Your task to perform on an android device: change timer sound Image 0: 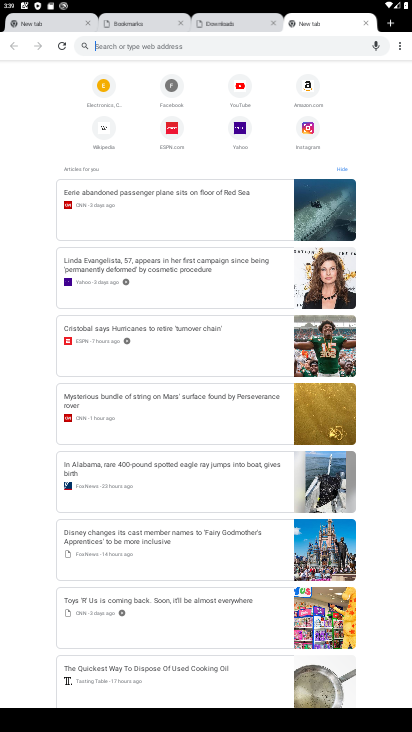
Step 0: press home button
Your task to perform on an android device: change timer sound Image 1: 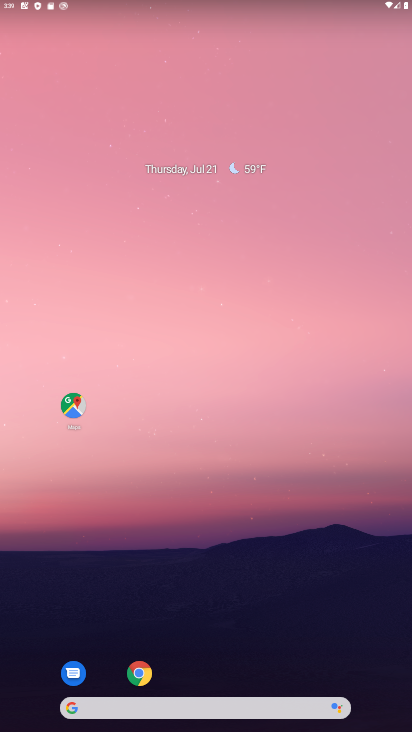
Step 1: drag from (351, 665) to (315, 178)
Your task to perform on an android device: change timer sound Image 2: 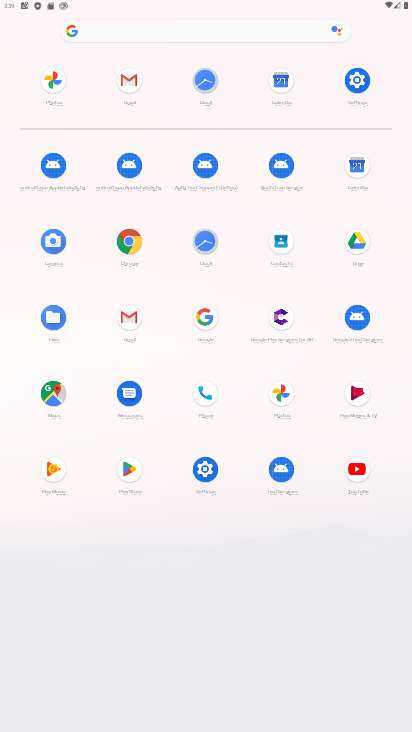
Step 2: click (204, 242)
Your task to perform on an android device: change timer sound Image 3: 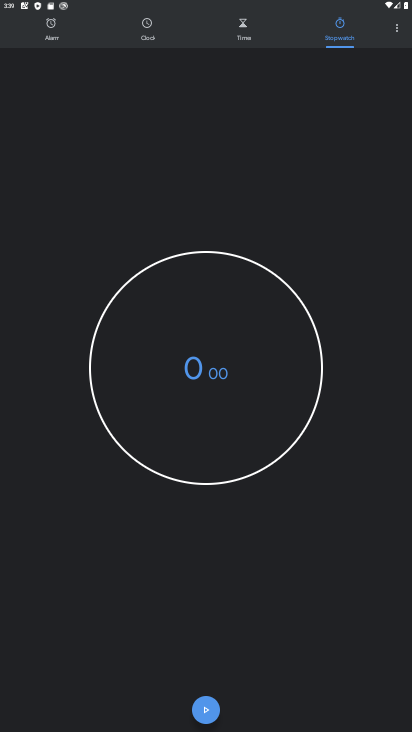
Step 3: click (397, 34)
Your task to perform on an android device: change timer sound Image 4: 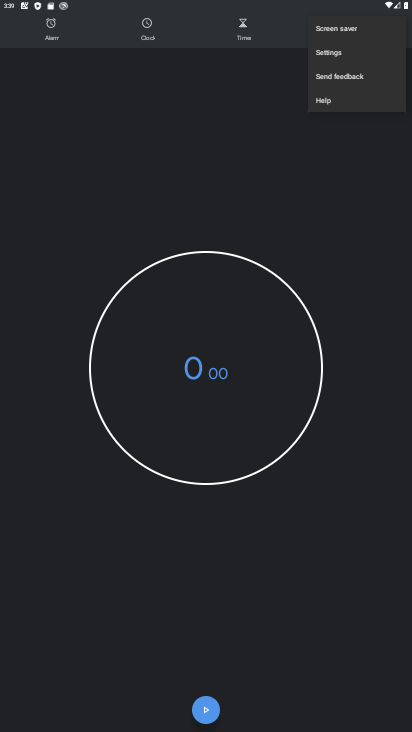
Step 4: click (326, 52)
Your task to perform on an android device: change timer sound Image 5: 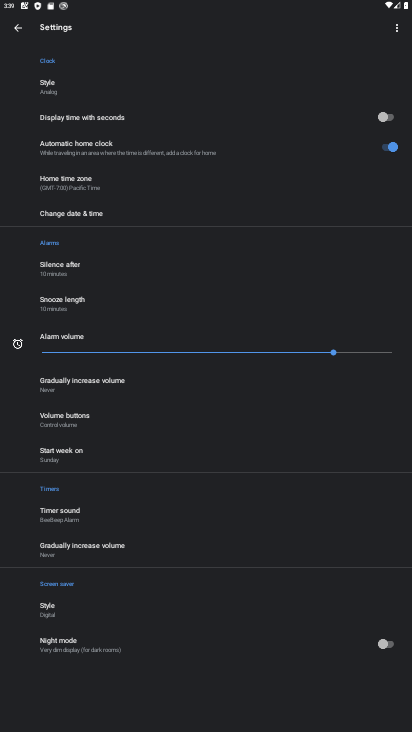
Step 5: click (59, 514)
Your task to perform on an android device: change timer sound Image 6: 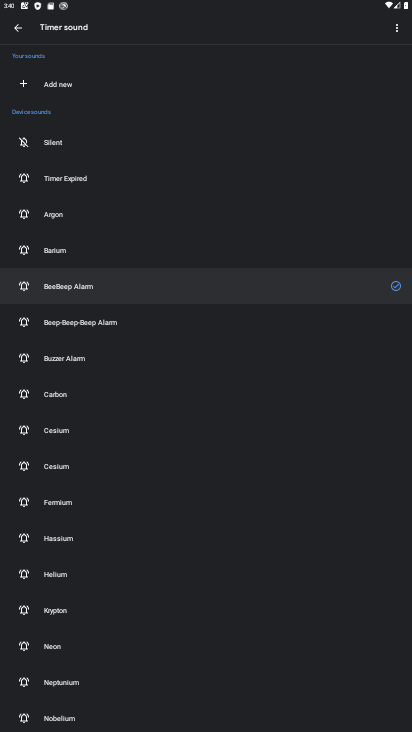
Step 6: click (62, 467)
Your task to perform on an android device: change timer sound Image 7: 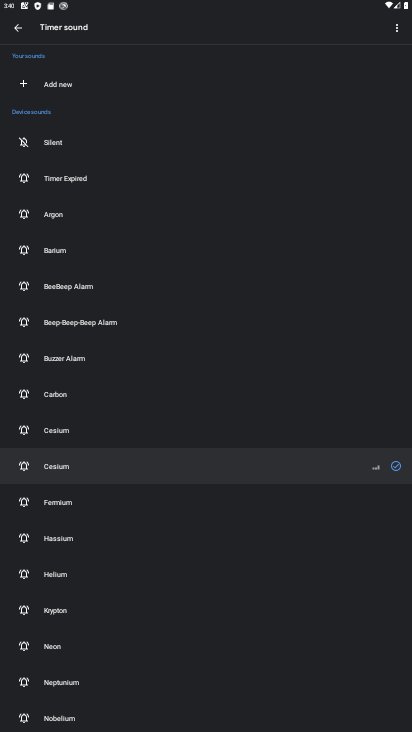
Step 7: task complete